Your task to perform on an android device: move a message to another label in the gmail app Image 0: 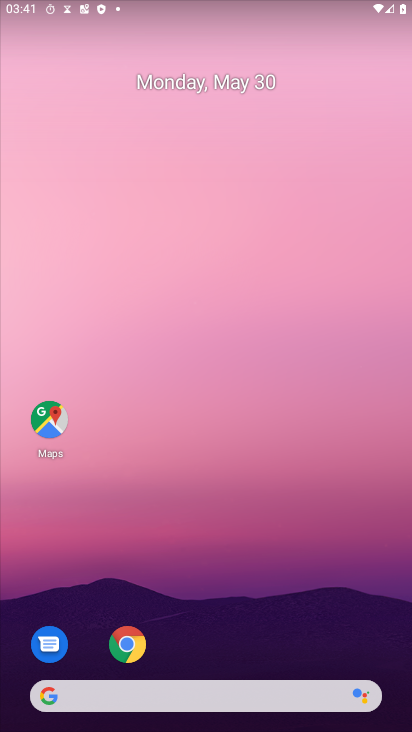
Step 0: press home button
Your task to perform on an android device: move a message to another label in the gmail app Image 1: 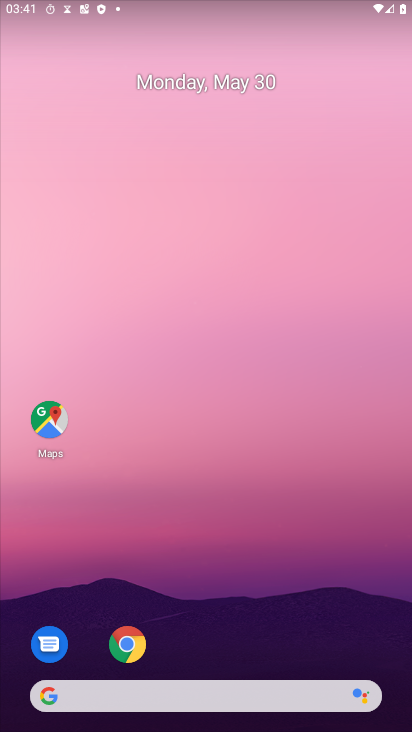
Step 1: drag from (261, 635) to (256, 129)
Your task to perform on an android device: move a message to another label in the gmail app Image 2: 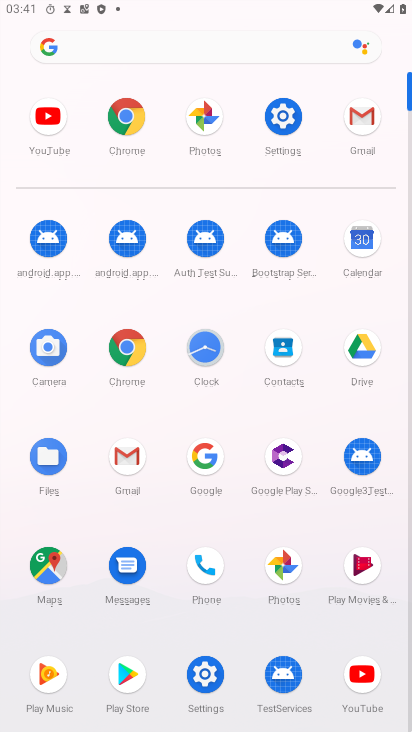
Step 2: click (365, 121)
Your task to perform on an android device: move a message to another label in the gmail app Image 3: 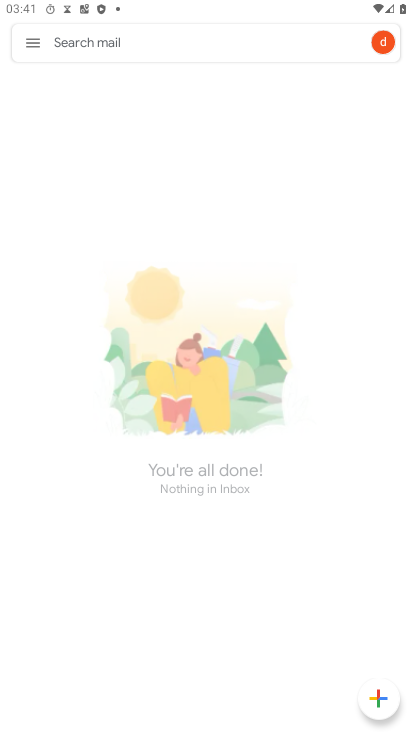
Step 3: click (31, 39)
Your task to perform on an android device: move a message to another label in the gmail app Image 4: 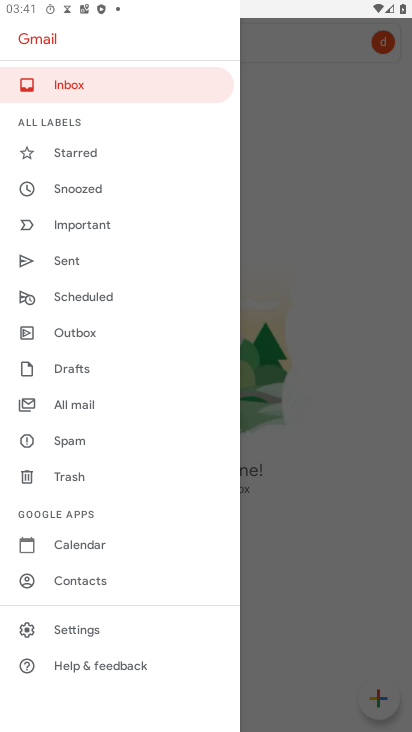
Step 4: click (77, 401)
Your task to perform on an android device: move a message to another label in the gmail app Image 5: 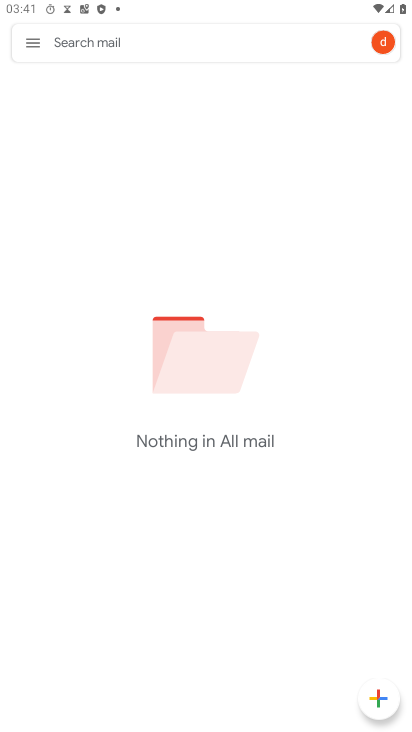
Step 5: task complete